Your task to perform on an android device: turn on sleep mode Image 0: 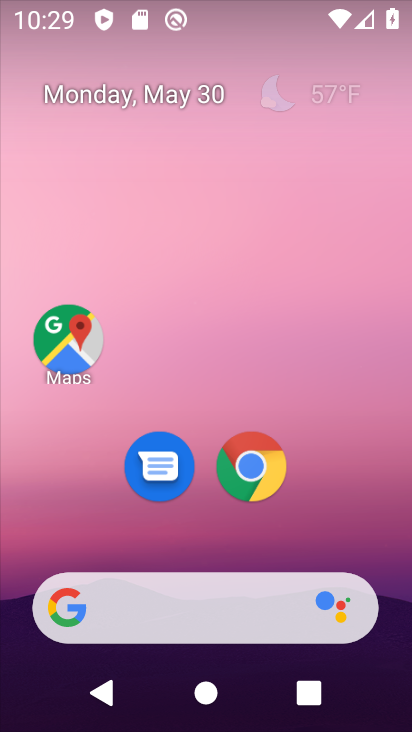
Step 0: drag from (304, 208) to (331, 10)
Your task to perform on an android device: turn on sleep mode Image 1: 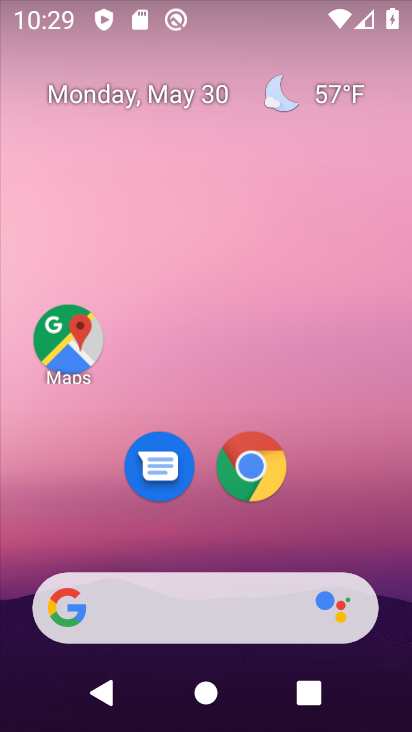
Step 1: drag from (354, 546) to (255, 32)
Your task to perform on an android device: turn on sleep mode Image 2: 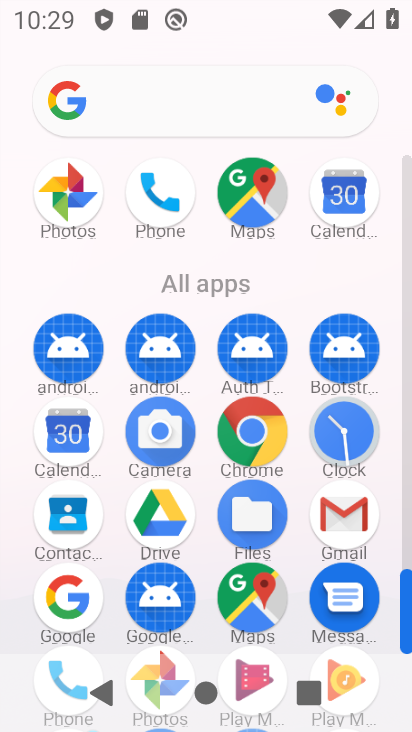
Step 2: drag from (115, 572) to (118, 235)
Your task to perform on an android device: turn on sleep mode Image 3: 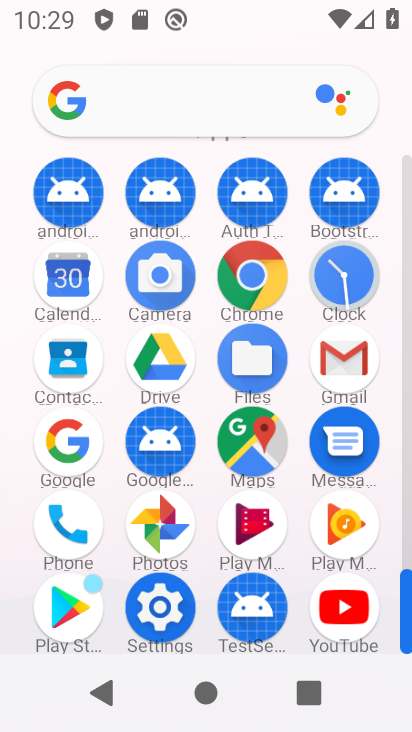
Step 3: click (169, 599)
Your task to perform on an android device: turn on sleep mode Image 4: 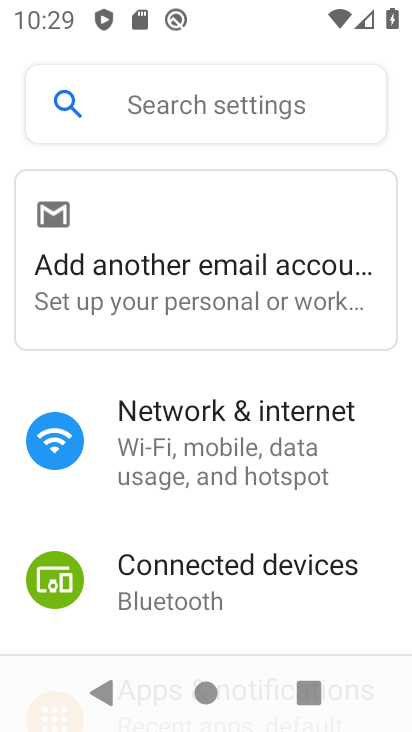
Step 4: drag from (302, 604) to (278, 164)
Your task to perform on an android device: turn on sleep mode Image 5: 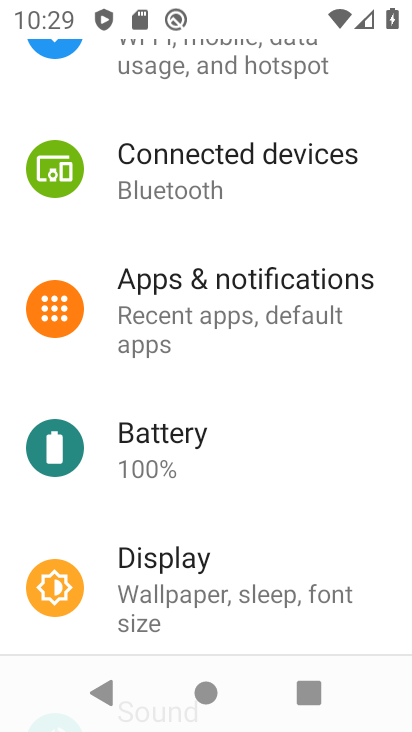
Step 5: click (204, 603)
Your task to perform on an android device: turn on sleep mode Image 6: 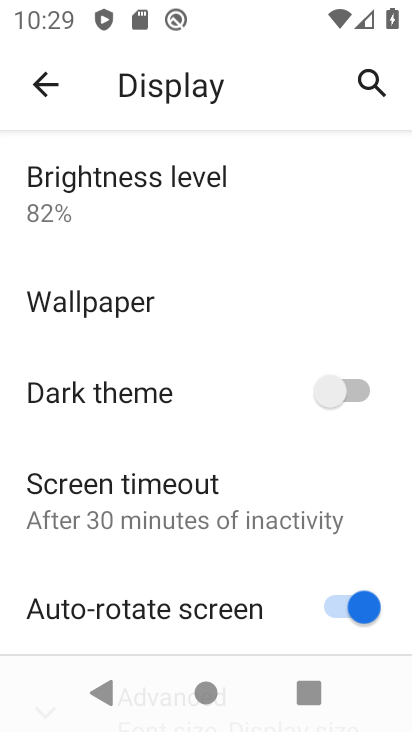
Step 6: task complete